Your task to perform on an android device: Clear all items from cart on amazon. Image 0: 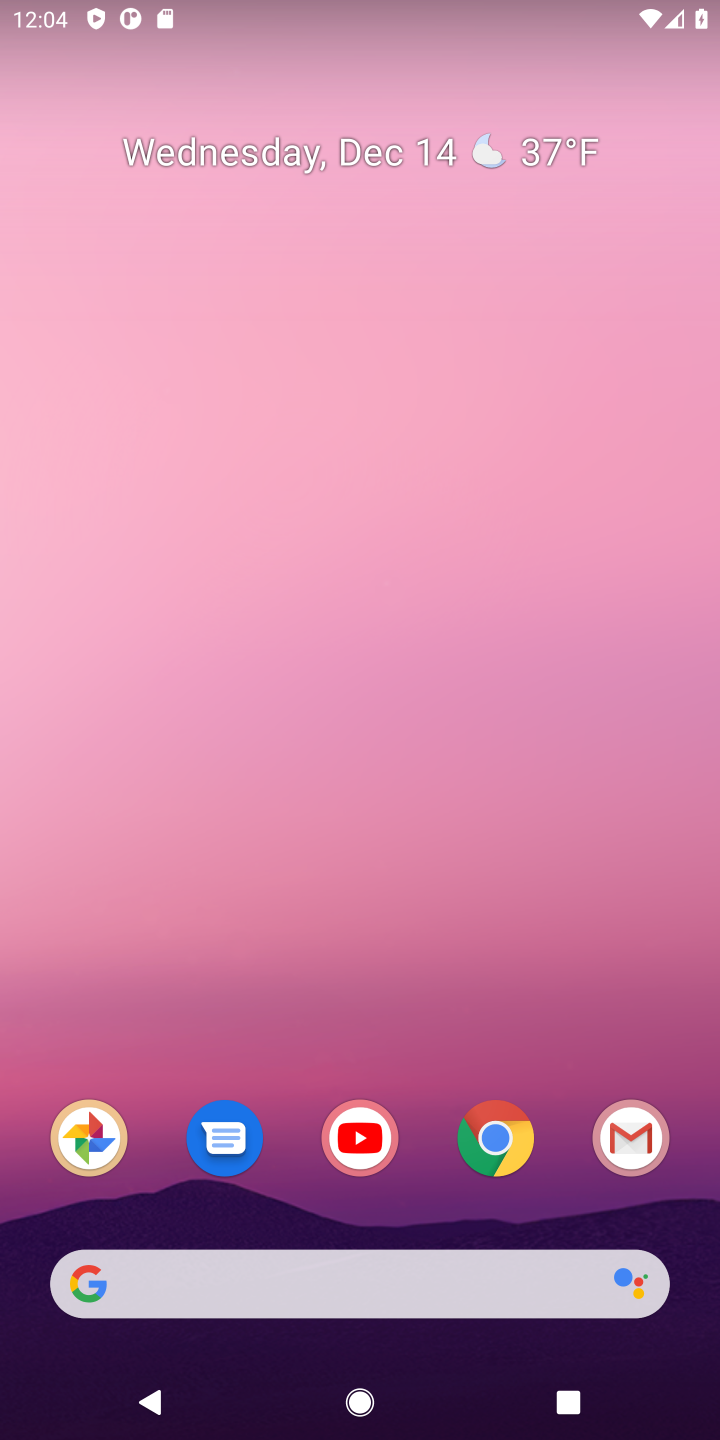
Step 0: click (490, 1143)
Your task to perform on an android device: Clear all items from cart on amazon. Image 1: 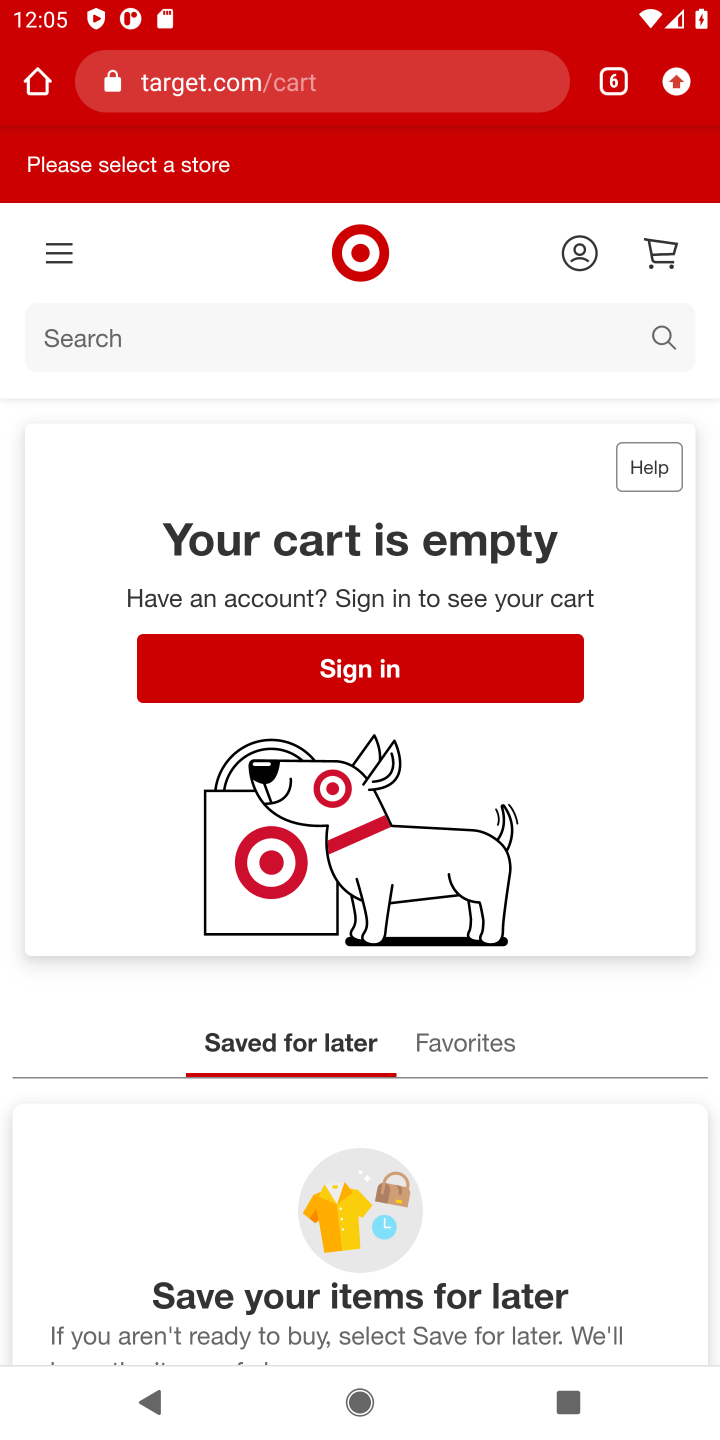
Step 1: press home button
Your task to perform on an android device: Clear all items from cart on amazon. Image 2: 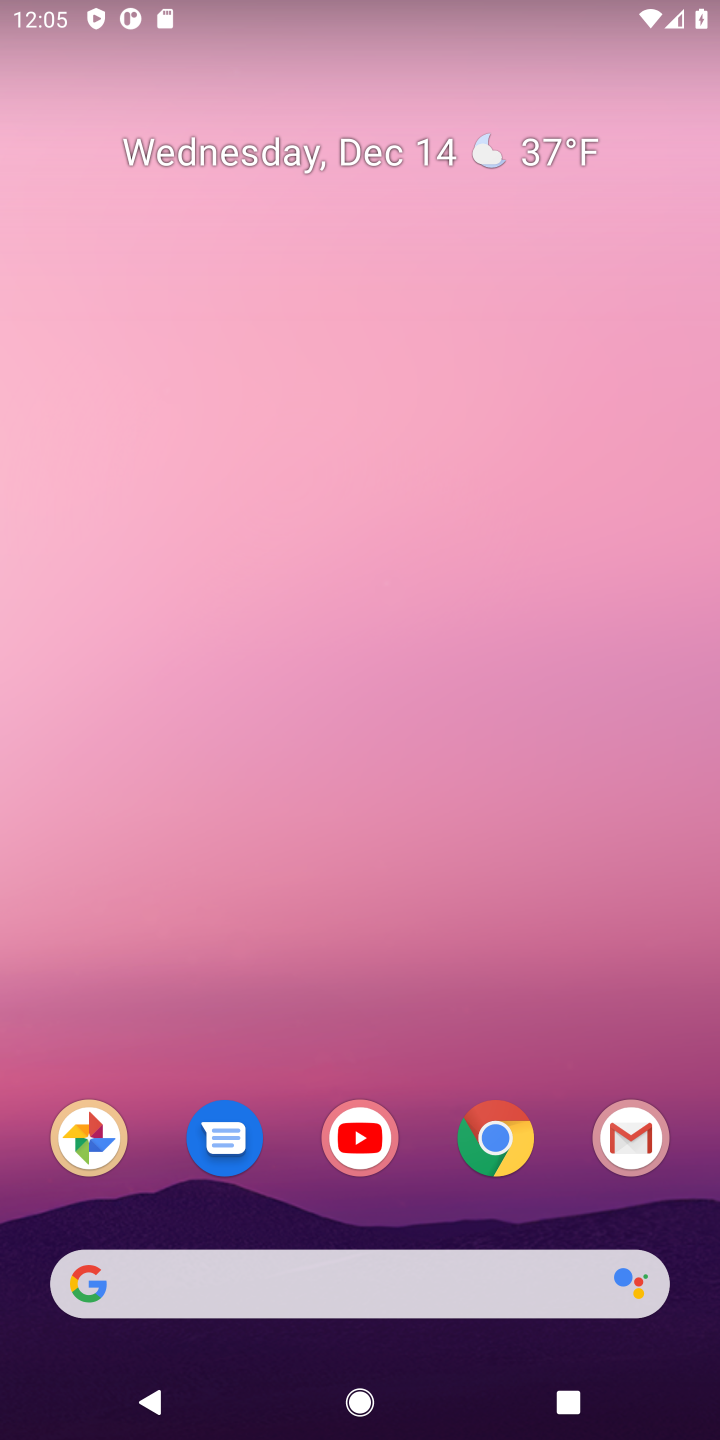
Step 2: click (505, 1133)
Your task to perform on an android device: Clear all items from cart on amazon. Image 3: 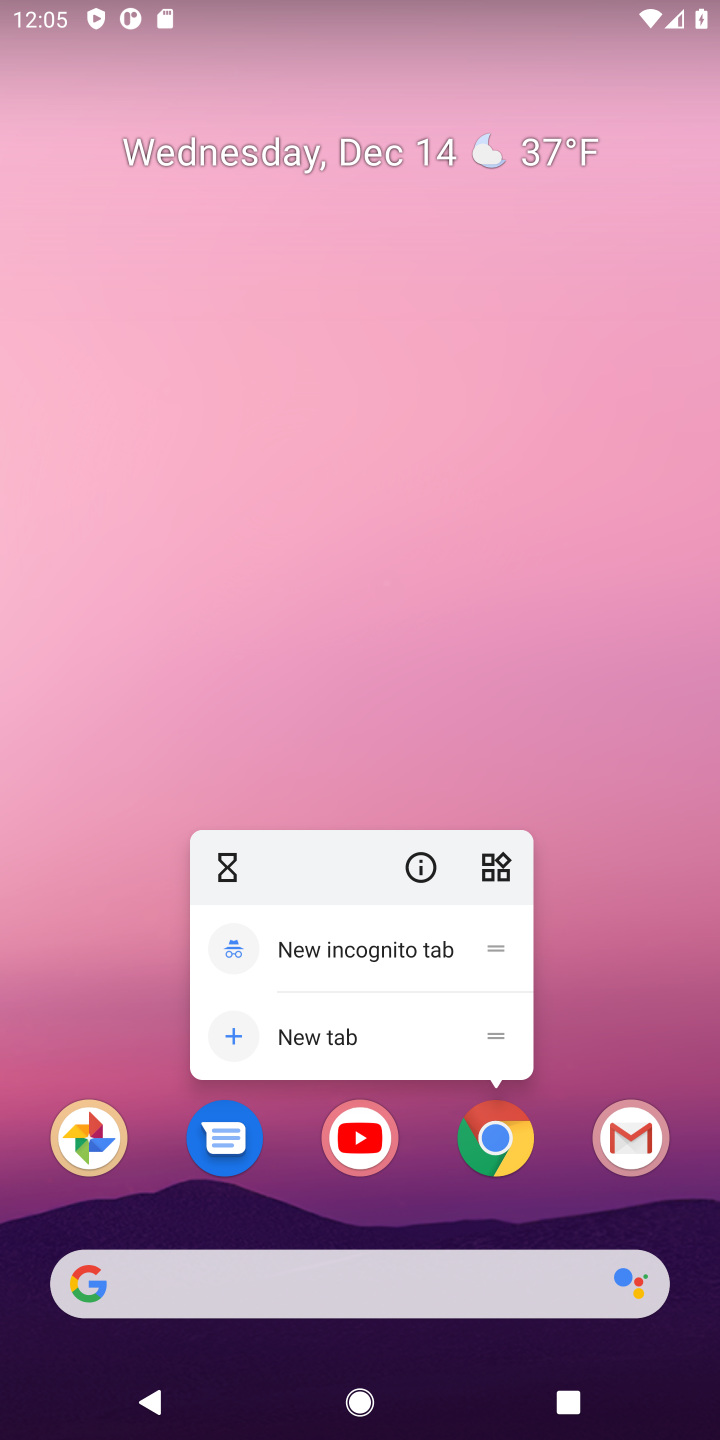
Step 3: click (502, 1135)
Your task to perform on an android device: Clear all items from cart on amazon. Image 4: 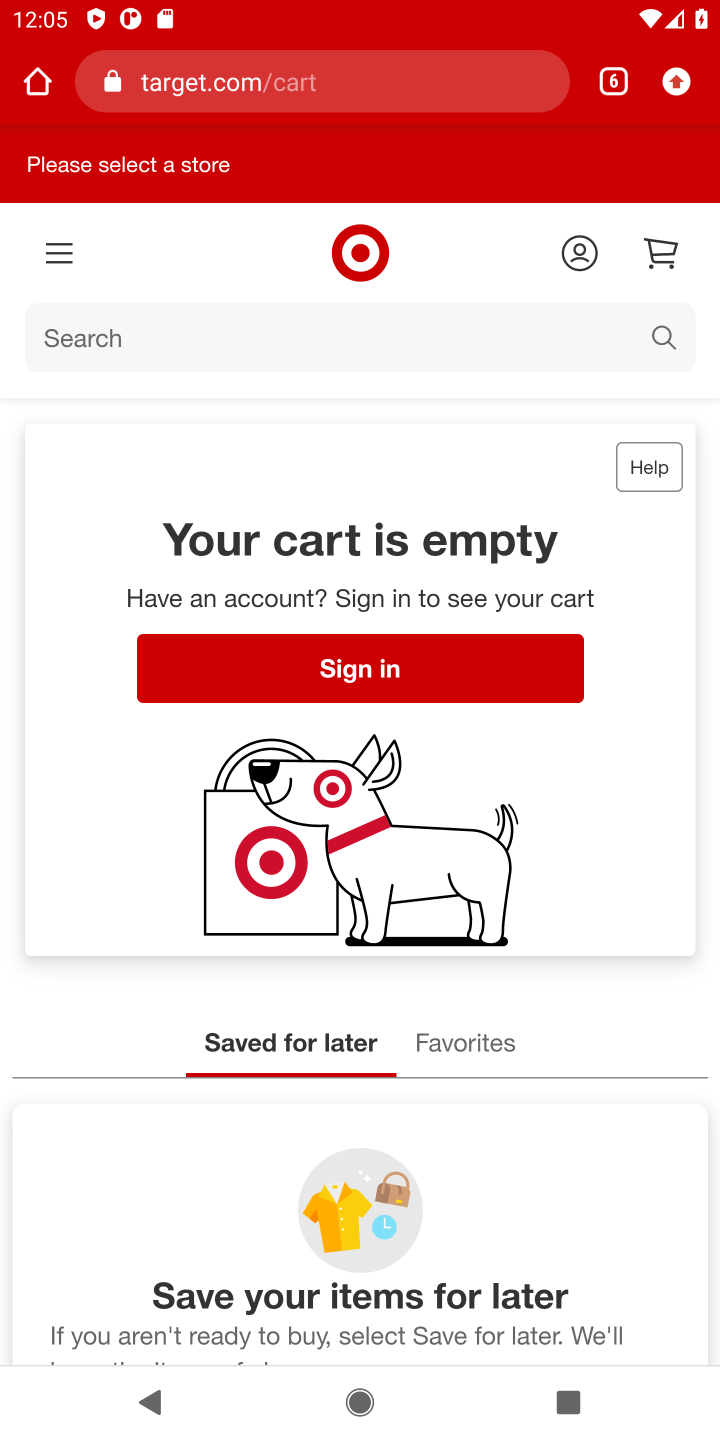
Step 4: click (614, 87)
Your task to perform on an android device: Clear all items from cart on amazon. Image 5: 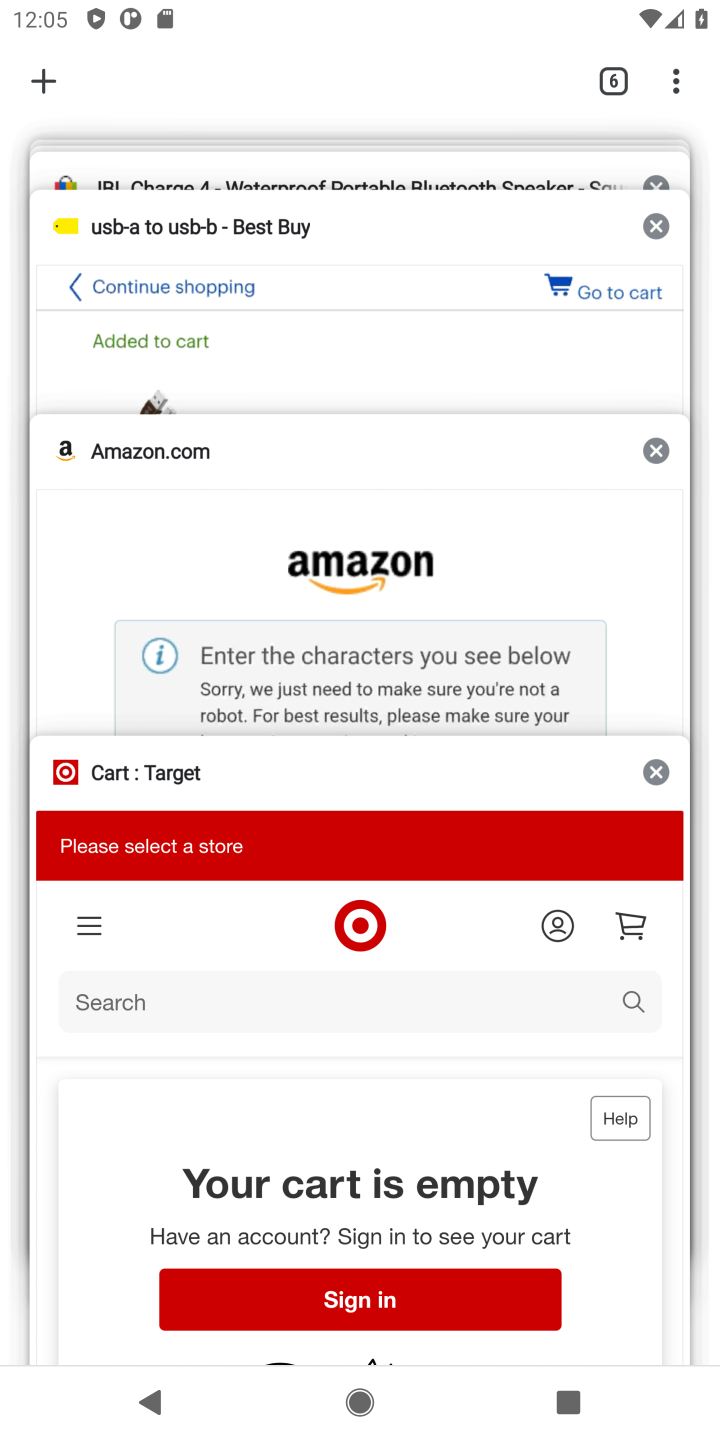
Step 5: click (324, 518)
Your task to perform on an android device: Clear all items from cart on amazon. Image 6: 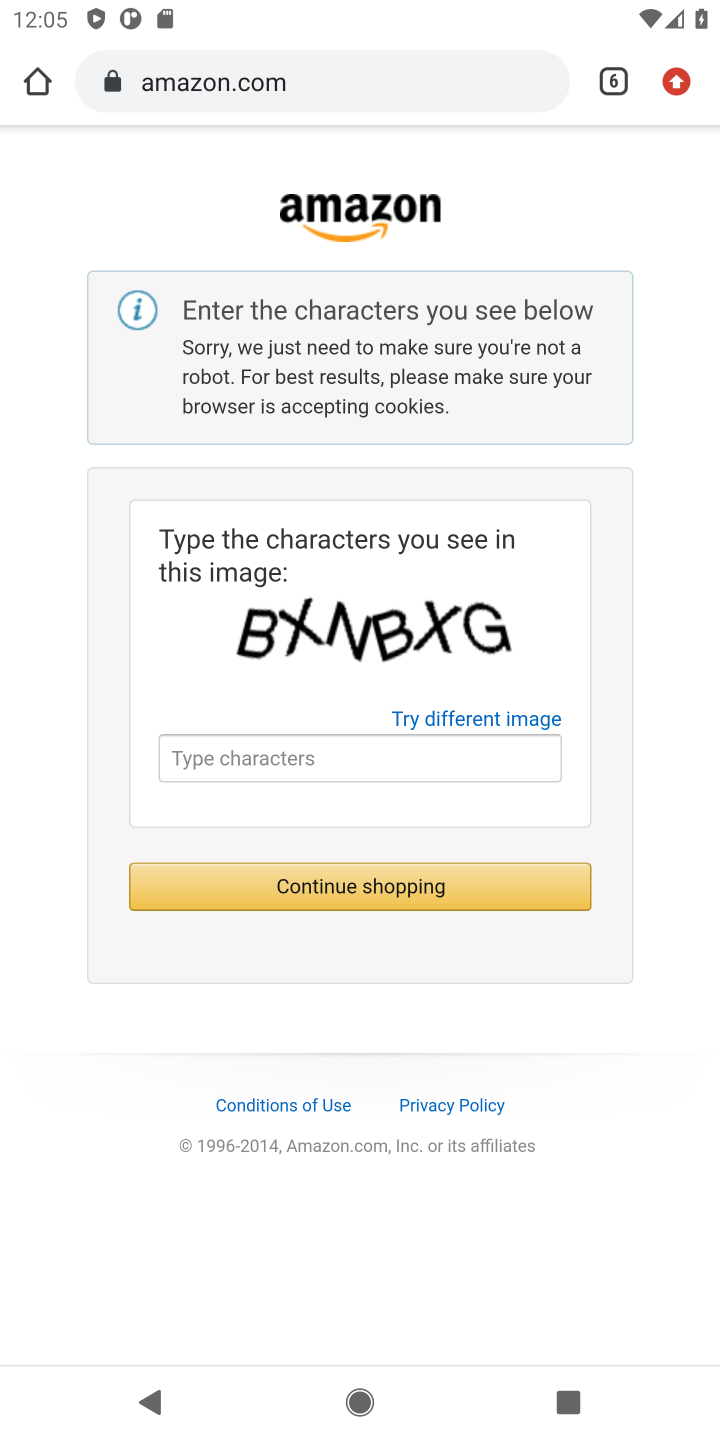
Step 6: click (279, 749)
Your task to perform on an android device: Clear all items from cart on amazon. Image 7: 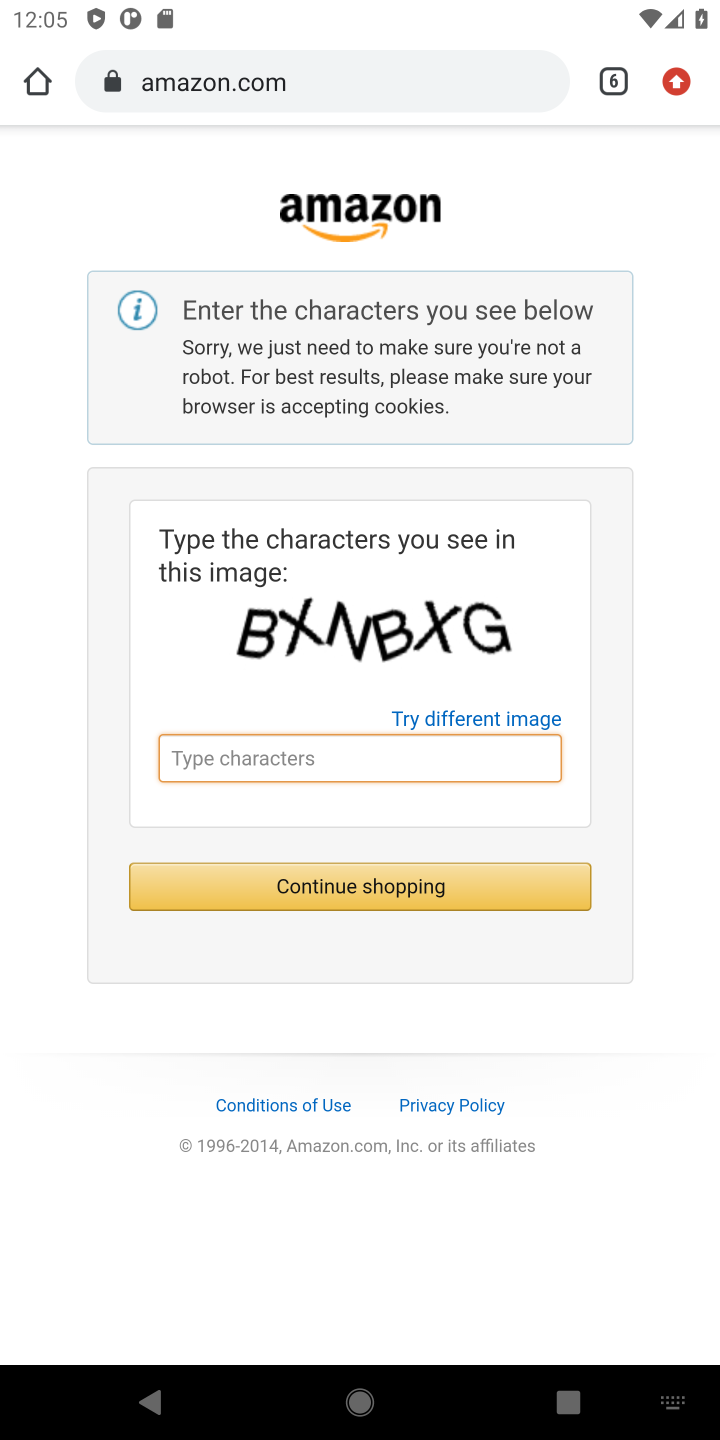
Step 7: type "BXNBXG"
Your task to perform on an android device: Clear all items from cart on amazon. Image 8: 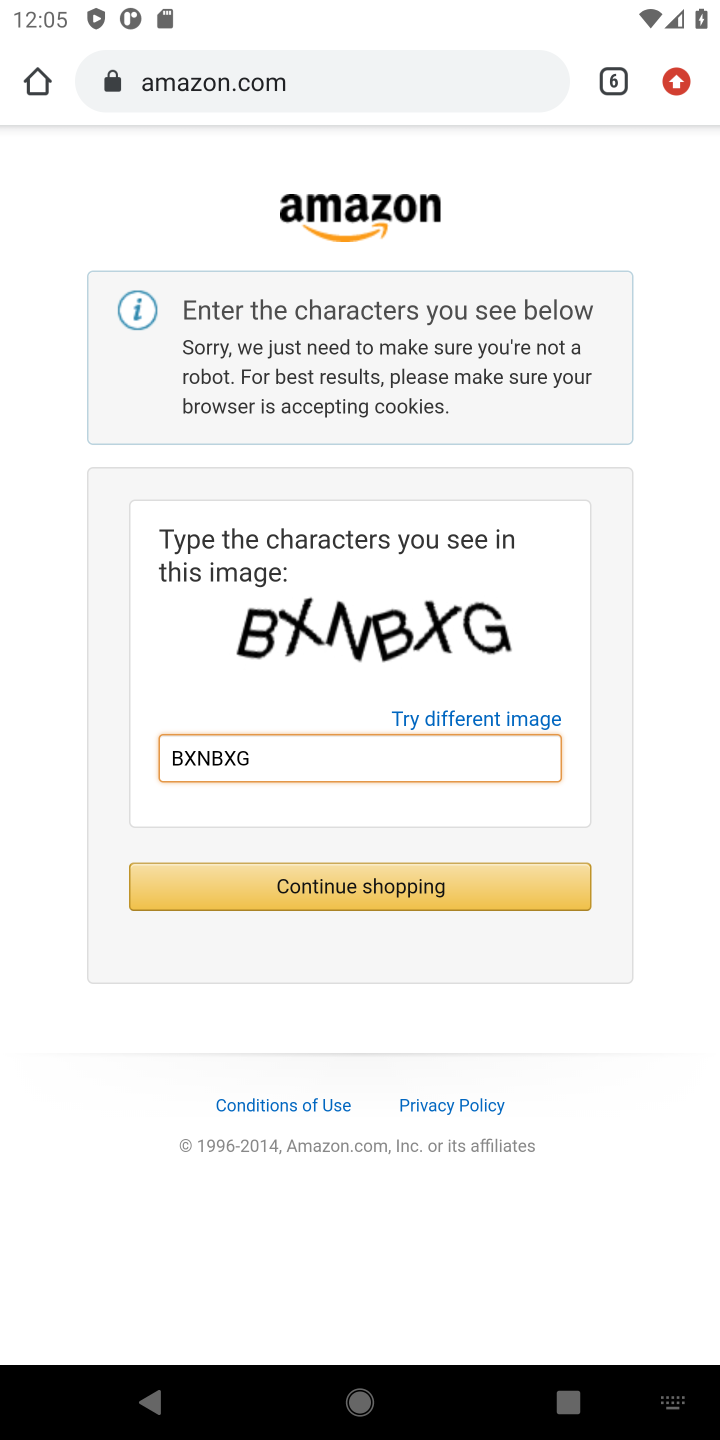
Step 8: click (334, 879)
Your task to perform on an android device: Clear all items from cart on amazon. Image 9: 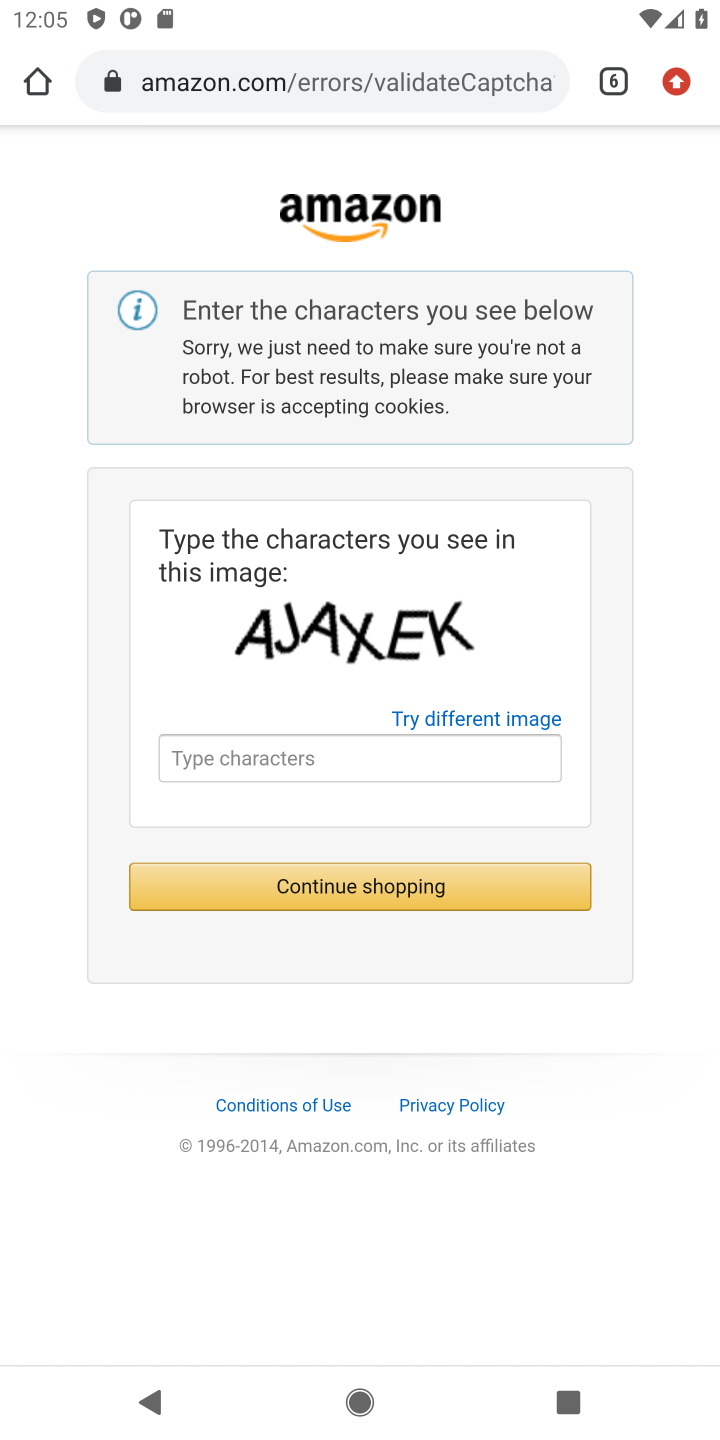
Step 9: click (315, 754)
Your task to perform on an android device: Clear all items from cart on amazon. Image 10: 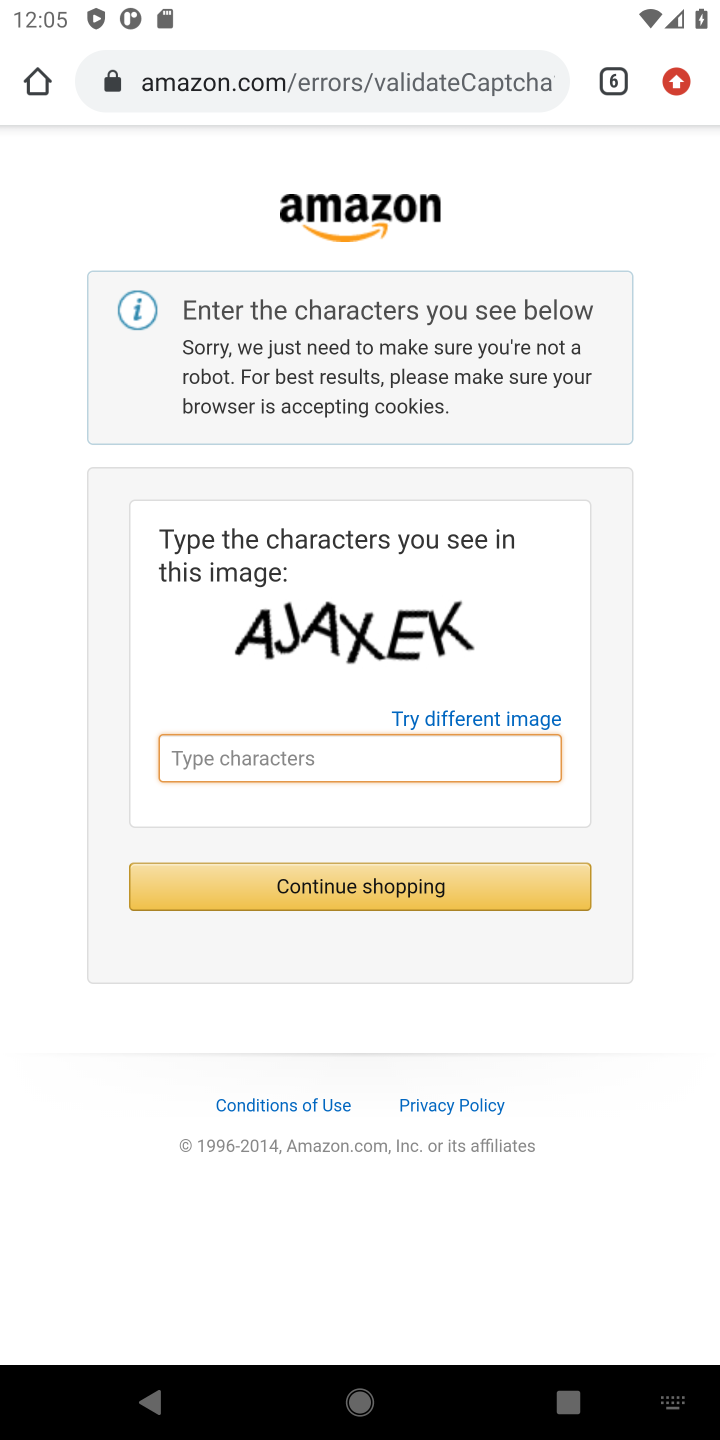
Step 10: type "AJAXEK"
Your task to perform on an android device: Clear all items from cart on amazon. Image 11: 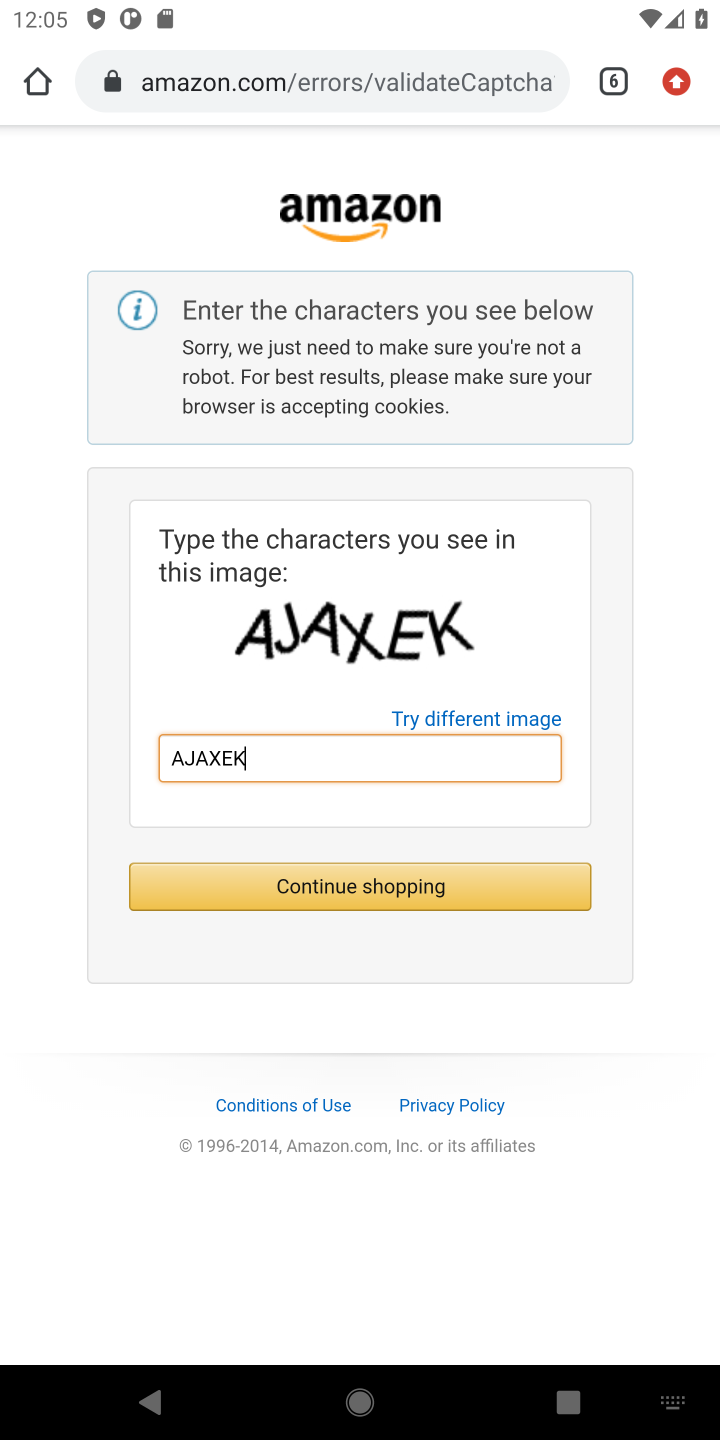
Step 11: click (286, 888)
Your task to perform on an android device: Clear all items from cart on amazon. Image 12: 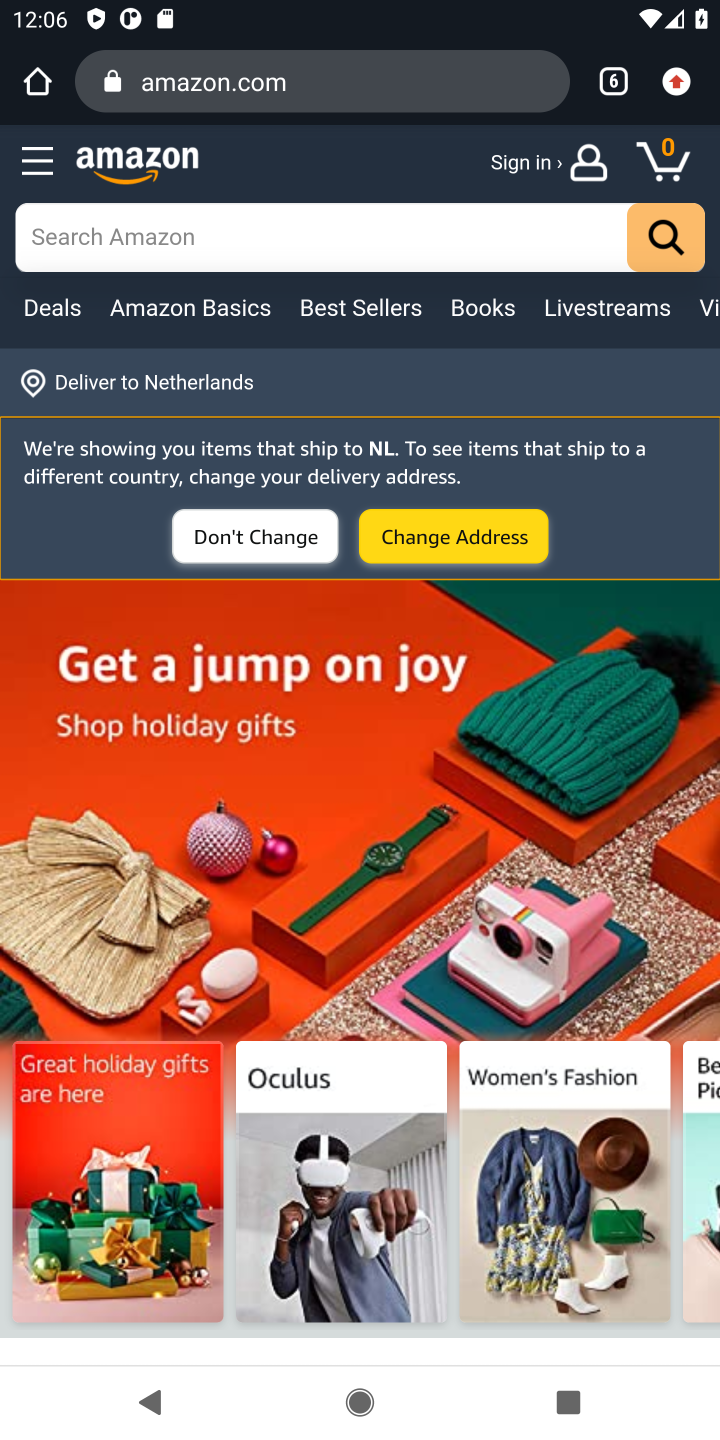
Step 12: click (672, 159)
Your task to perform on an android device: Clear all items from cart on amazon. Image 13: 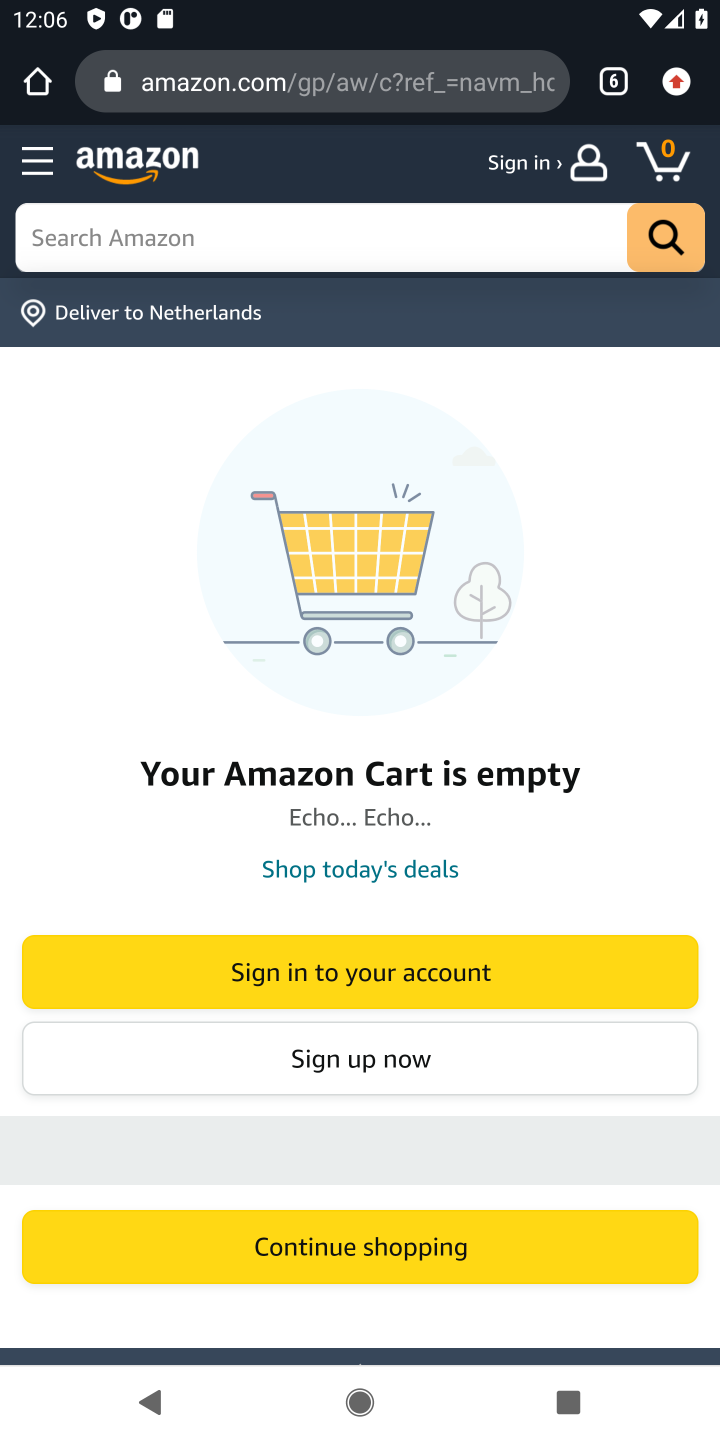
Step 13: task complete